Your task to perform on an android device: open device folders in google photos Image 0: 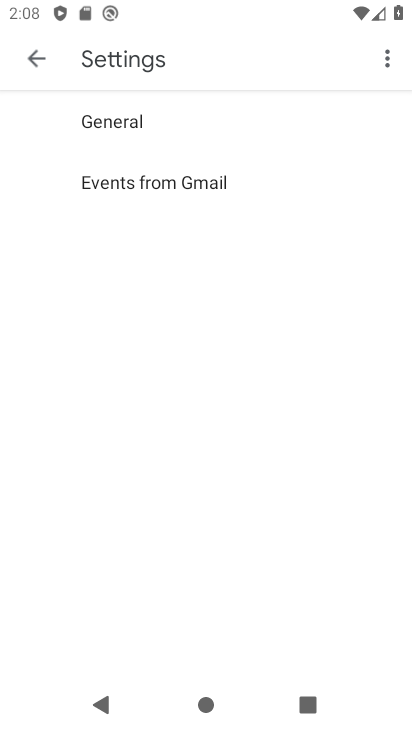
Step 0: press back button
Your task to perform on an android device: open device folders in google photos Image 1: 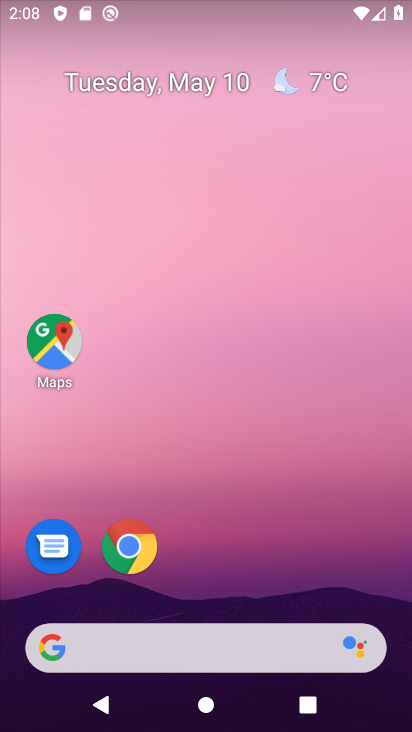
Step 1: drag from (289, 505) to (289, 219)
Your task to perform on an android device: open device folders in google photos Image 2: 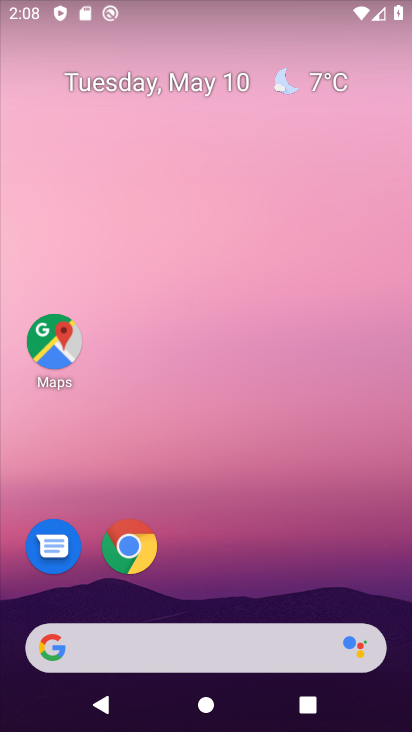
Step 2: drag from (242, 555) to (255, 212)
Your task to perform on an android device: open device folders in google photos Image 3: 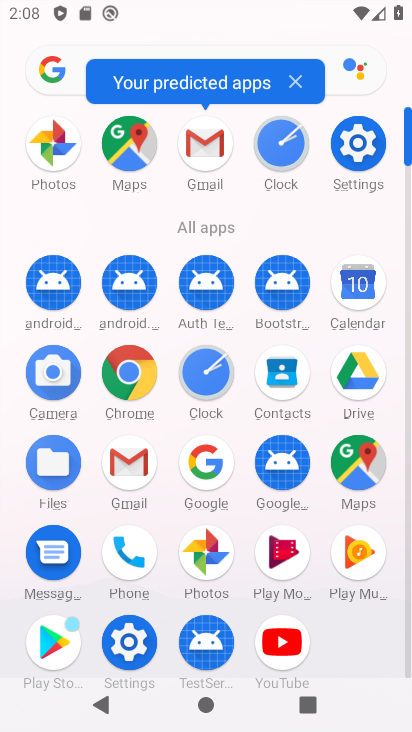
Step 3: click (210, 561)
Your task to perform on an android device: open device folders in google photos Image 4: 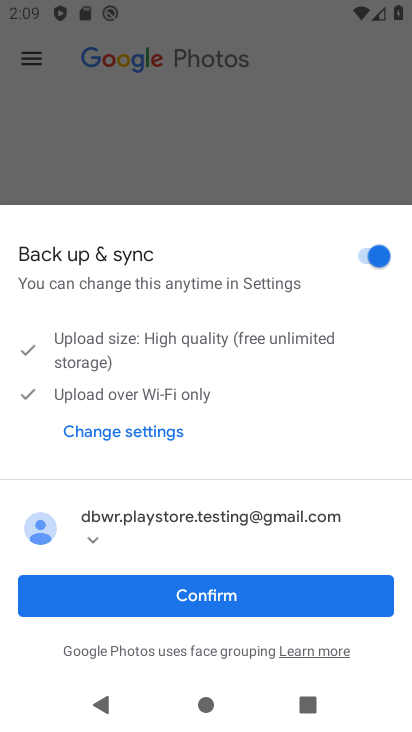
Step 4: click (216, 598)
Your task to perform on an android device: open device folders in google photos Image 5: 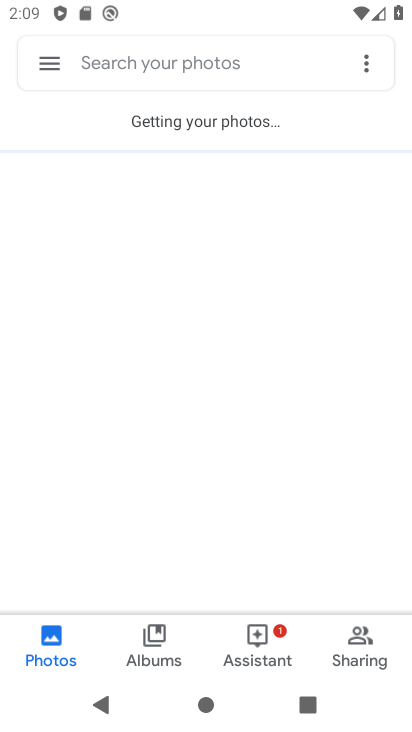
Step 5: click (37, 59)
Your task to perform on an android device: open device folders in google photos Image 6: 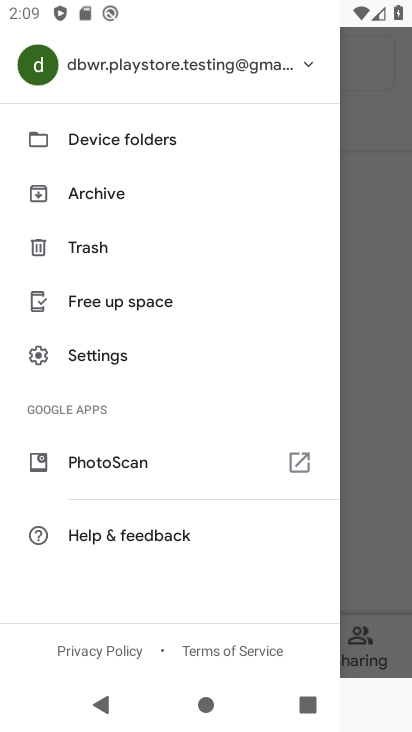
Step 6: click (112, 145)
Your task to perform on an android device: open device folders in google photos Image 7: 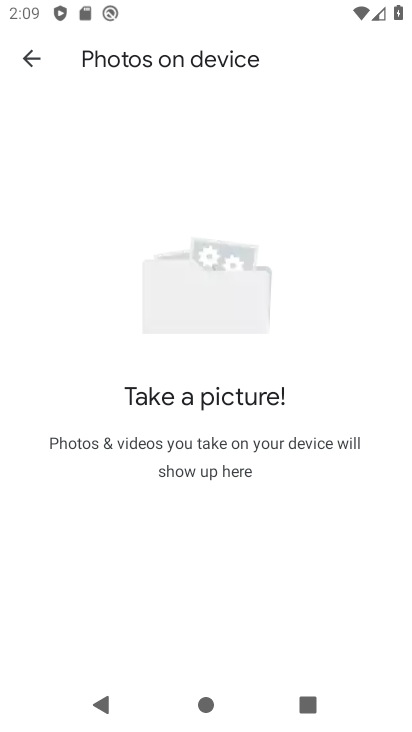
Step 7: task complete